Your task to perform on an android device: Open accessibility settings Image 0: 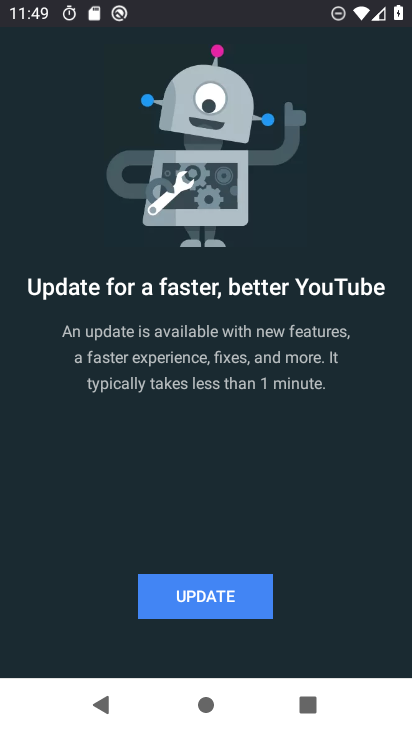
Step 0: press home button
Your task to perform on an android device: Open accessibility settings Image 1: 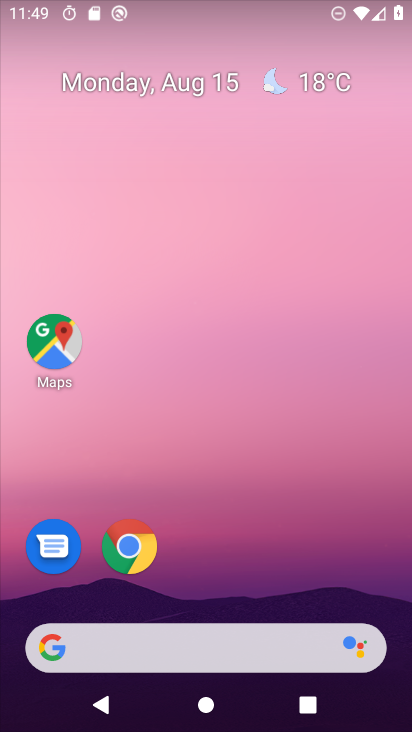
Step 1: drag from (229, 604) to (234, 147)
Your task to perform on an android device: Open accessibility settings Image 2: 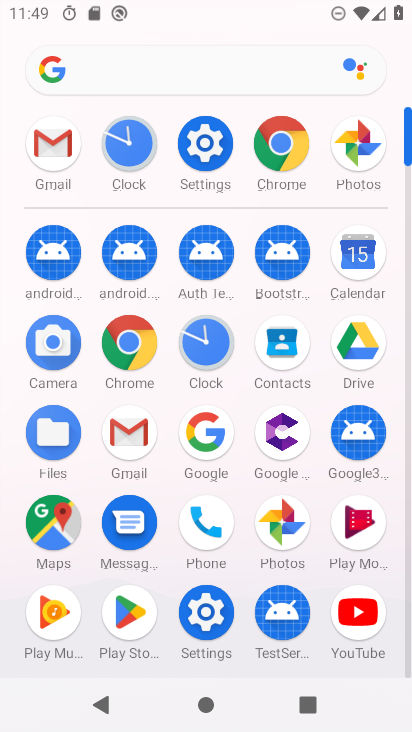
Step 2: click (202, 616)
Your task to perform on an android device: Open accessibility settings Image 3: 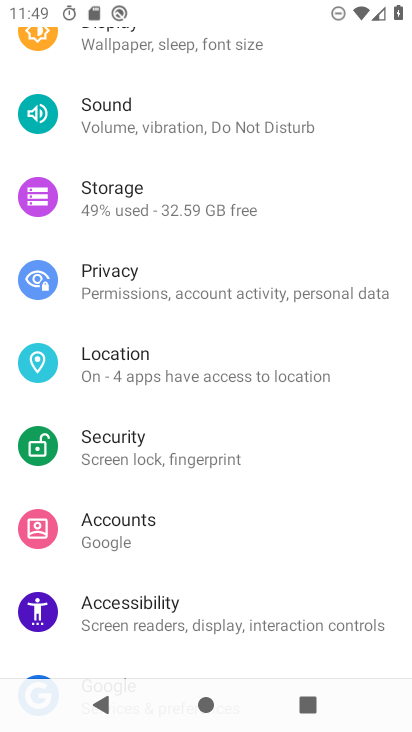
Step 3: click (130, 612)
Your task to perform on an android device: Open accessibility settings Image 4: 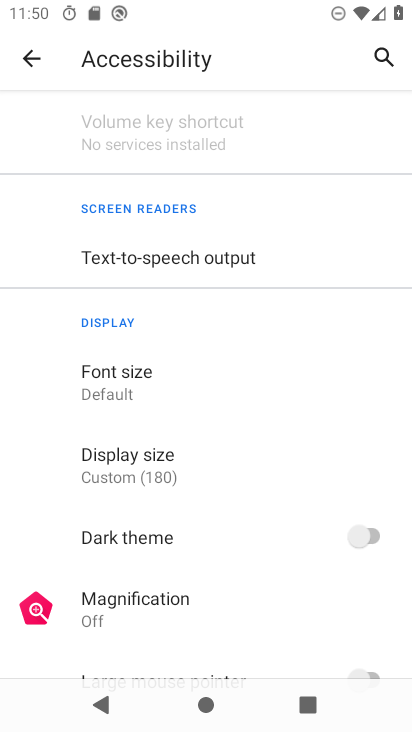
Step 4: task complete